Your task to perform on an android device: Open Wikipedia Image 0: 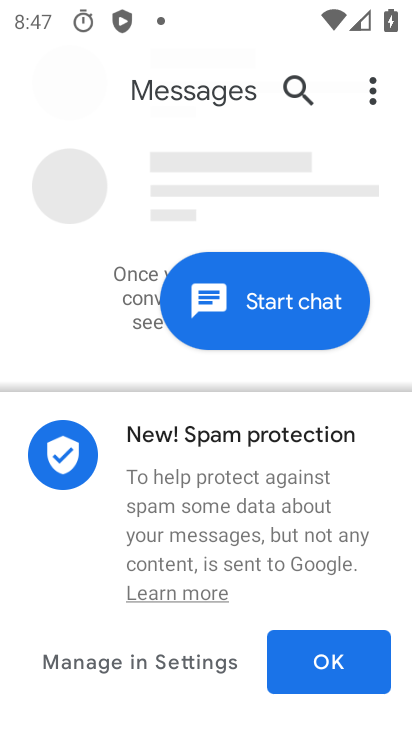
Step 0: press home button
Your task to perform on an android device: Open Wikipedia Image 1: 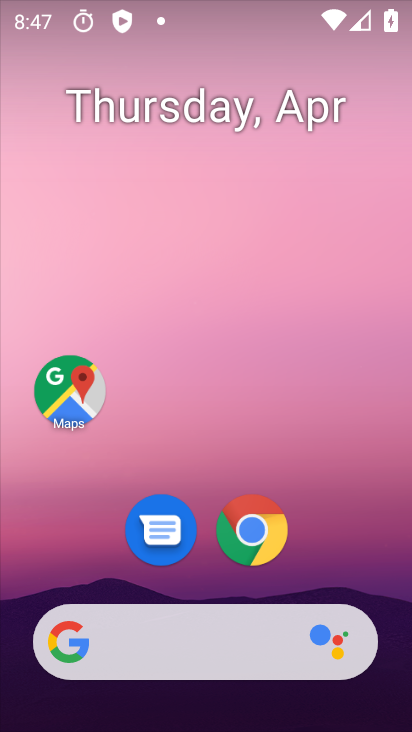
Step 1: drag from (350, 550) to (351, 128)
Your task to perform on an android device: Open Wikipedia Image 2: 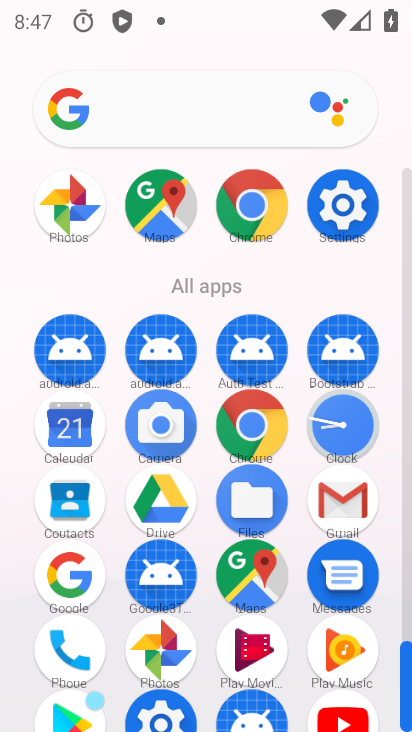
Step 2: click (265, 437)
Your task to perform on an android device: Open Wikipedia Image 3: 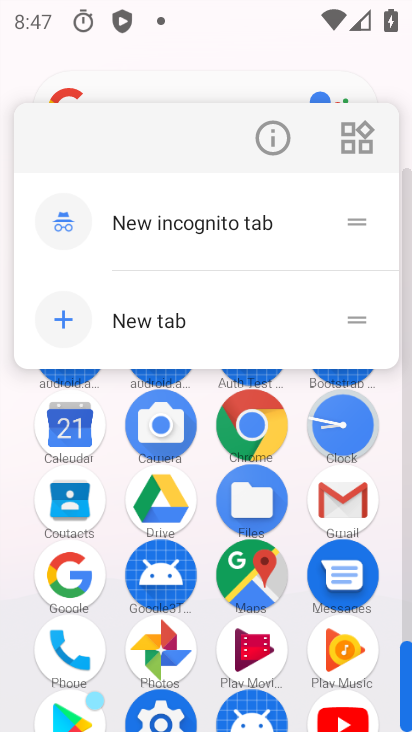
Step 3: click (265, 417)
Your task to perform on an android device: Open Wikipedia Image 4: 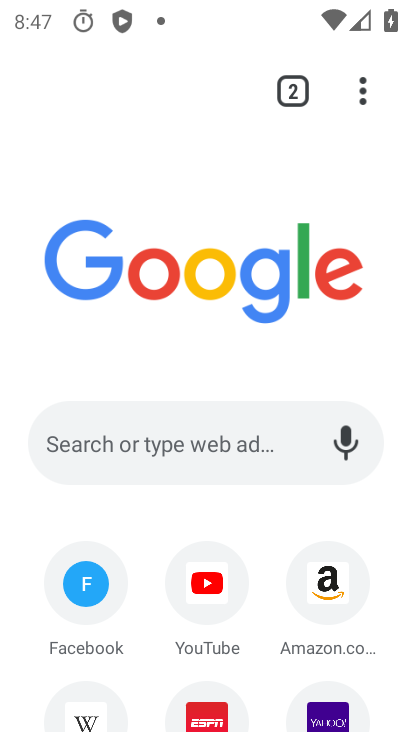
Step 4: drag from (382, 488) to (382, 224)
Your task to perform on an android device: Open Wikipedia Image 5: 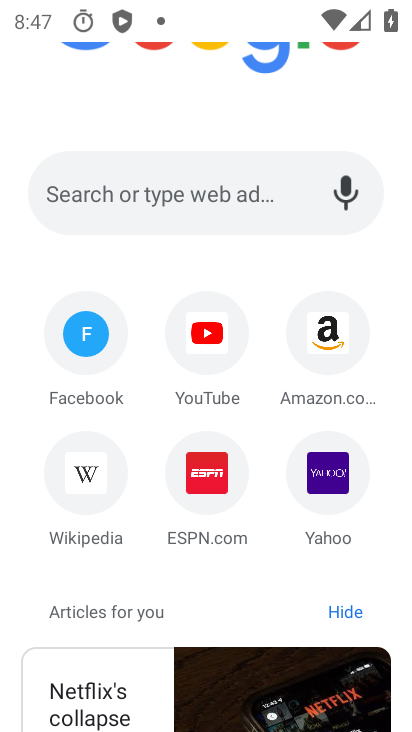
Step 5: click (80, 485)
Your task to perform on an android device: Open Wikipedia Image 6: 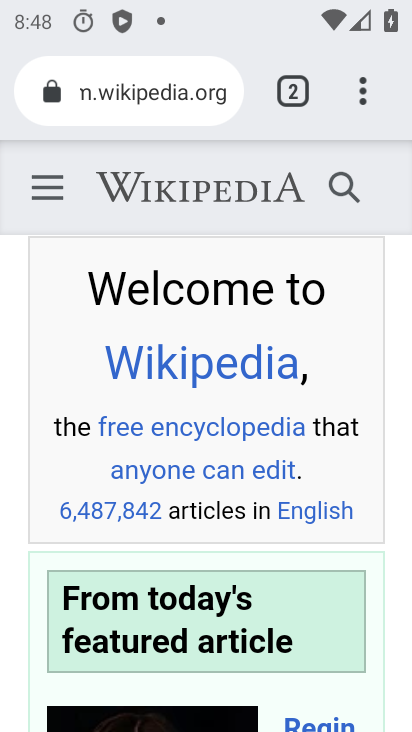
Step 6: task complete